Your task to perform on an android device: toggle notification dots Image 0: 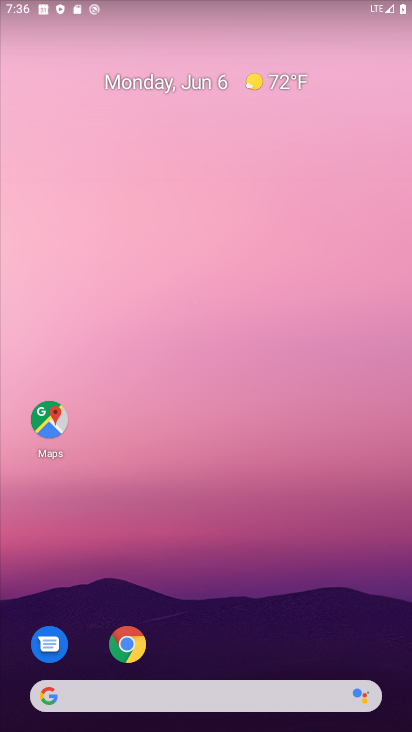
Step 0: drag from (248, 714) to (164, 245)
Your task to perform on an android device: toggle notification dots Image 1: 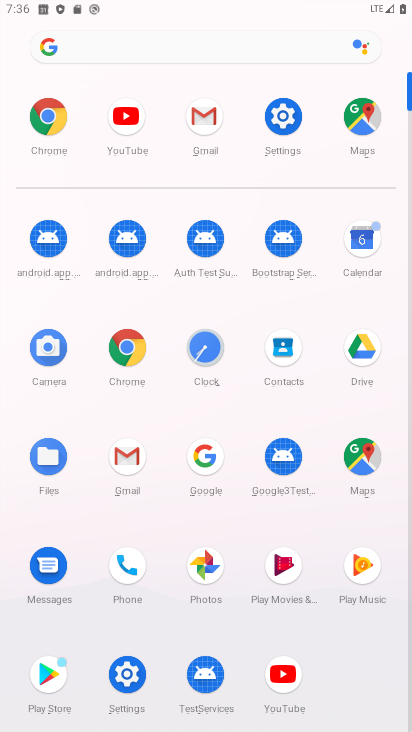
Step 1: drag from (297, 717) to (239, 464)
Your task to perform on an android device: toggle notification dots Image 2: 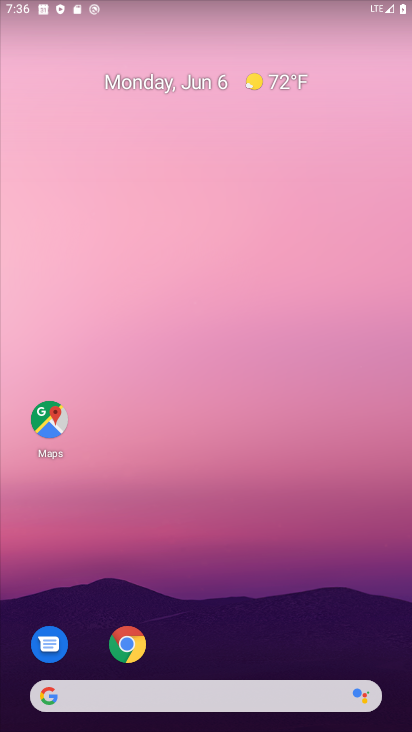
Step 2: click (127, 688)
Your task to perform on an android device: toggle notification dots Image 3: 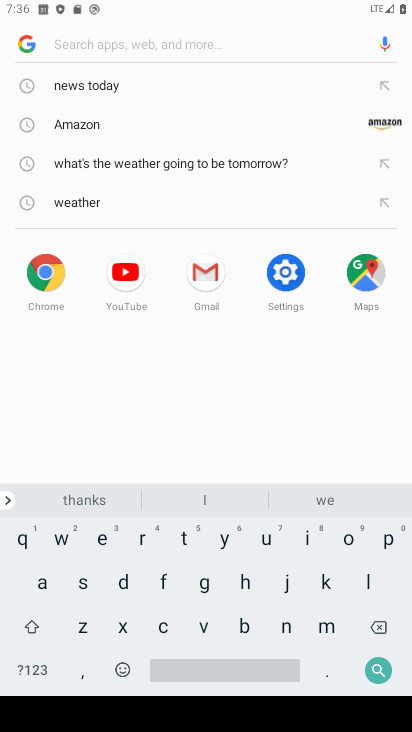
Step 3: press home button
Your task to perform on an android device: toggle notification dots Image 4: 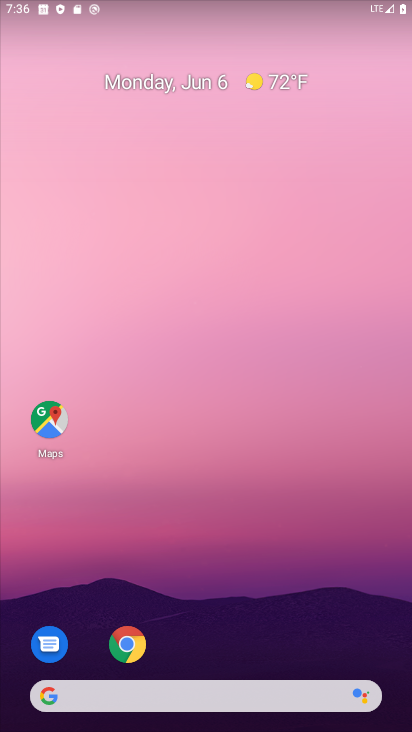
Step 4: drag from (246, 702) to (193, 205)
Your task to perform on an android device: toggle notification dots Image 5: 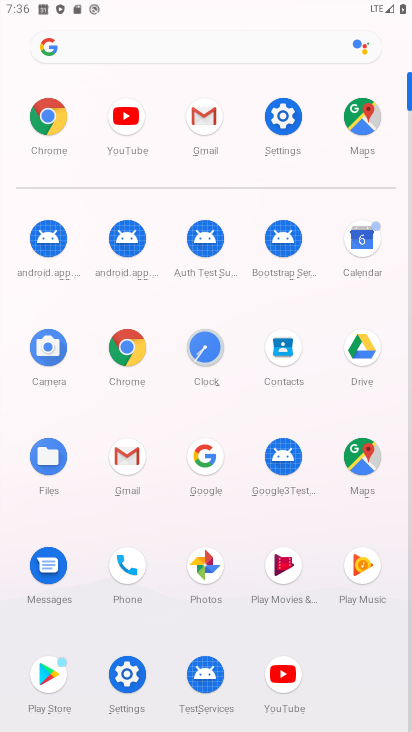
Step 5: click (147, 664)
Your task to perform on an android device: toggle notification dots Image 6: 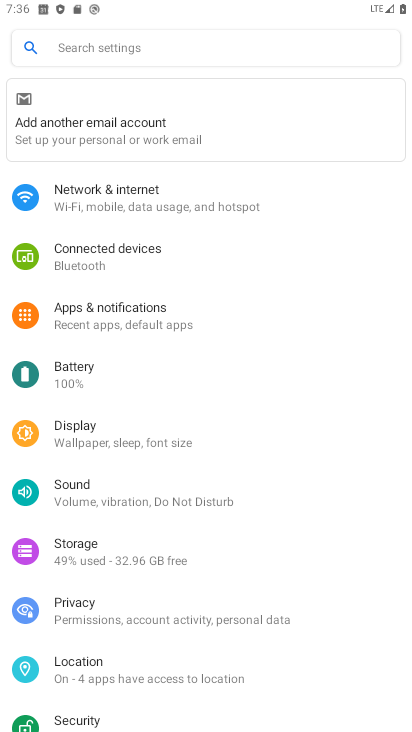
Step 6: click (131, 46)
Your task to perform on an android device: toggle notification dots Image 7: 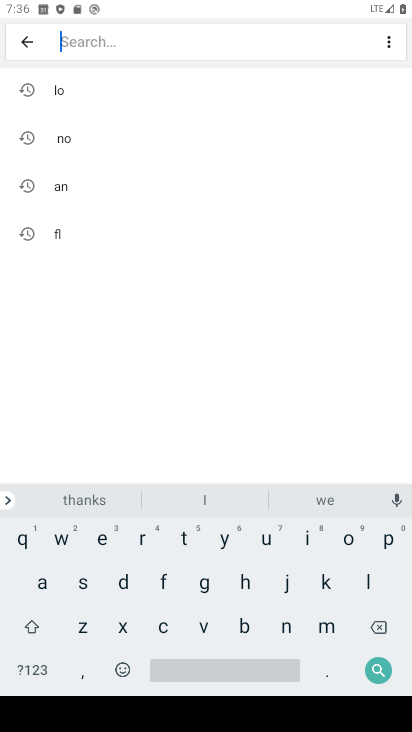
Step 7: click (122, 578)
Your task to perform on an android device: toggle notification dots Image 8: 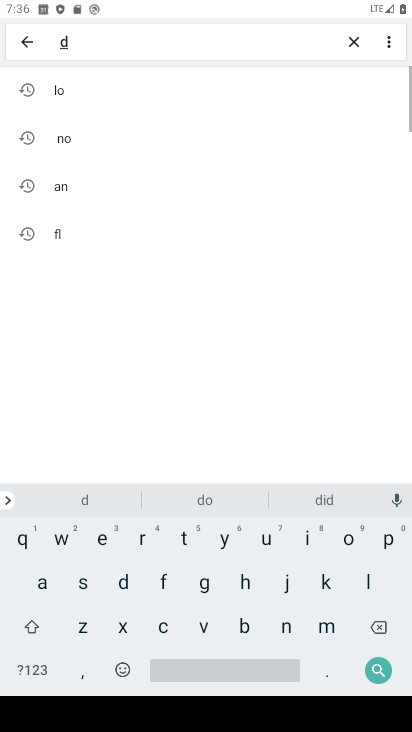
Step 8: click (341, 545)
Your task to perform on an android device: toggle notification dots Image 9: 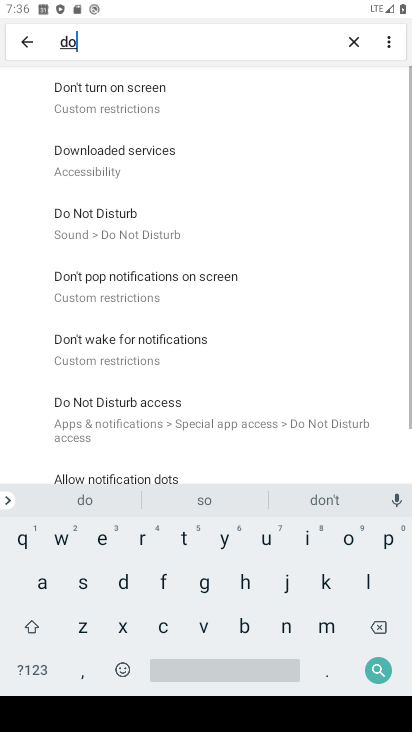
Step 9: click (185, 543)
Your task to perform on an android device: toggle notification dots Image 10: 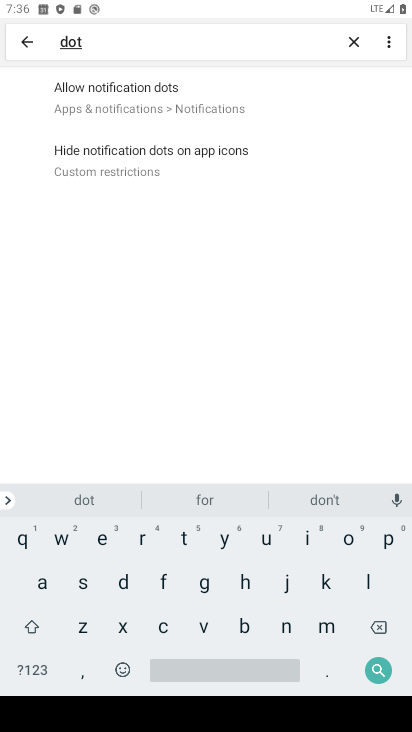
Step 10: click (130, 93)
Your task to perform on an android device: toggle notification dots Image 11: 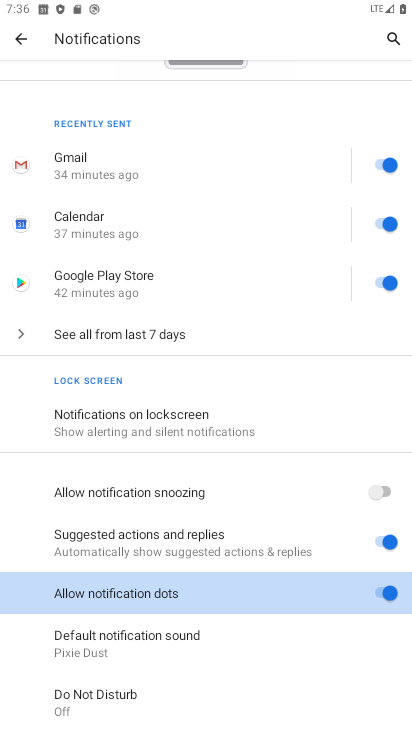
Step 11: click (180, 583)
Your task to perform on an android device: toggle notification dots Image 12: 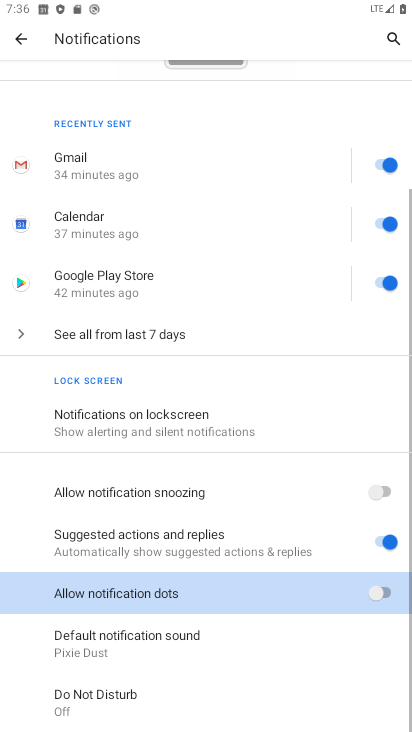
Step 12: click (180, 583)
Your task to perform on an android device: toggle notification dots Image 13: 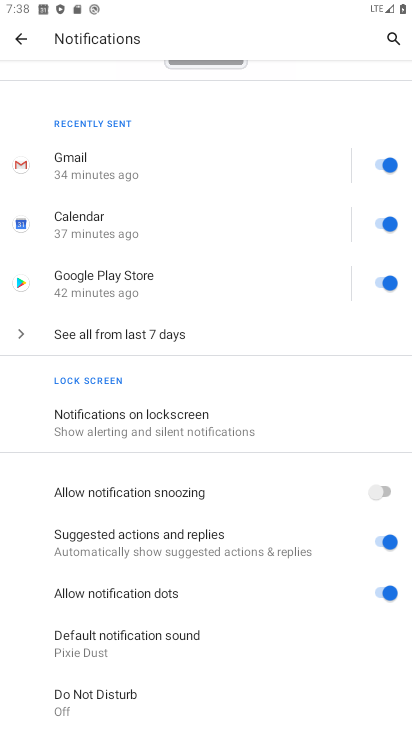
Step 13: task complete